Your task to perform on an android device: open wifi settings Image 0: 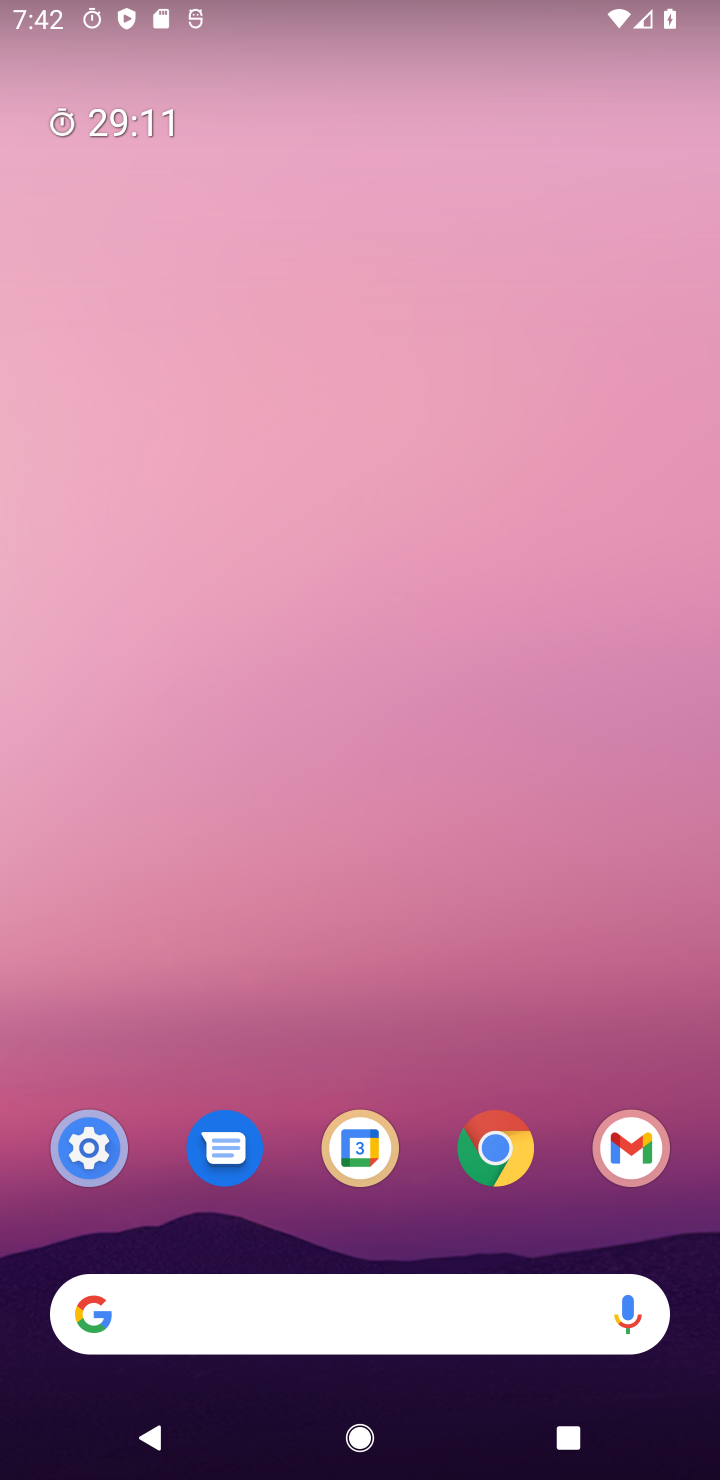
Step 0: drag from (345, 1188) to (414, 439)
Your task to perform on an android device: open wifi settings Image 1: 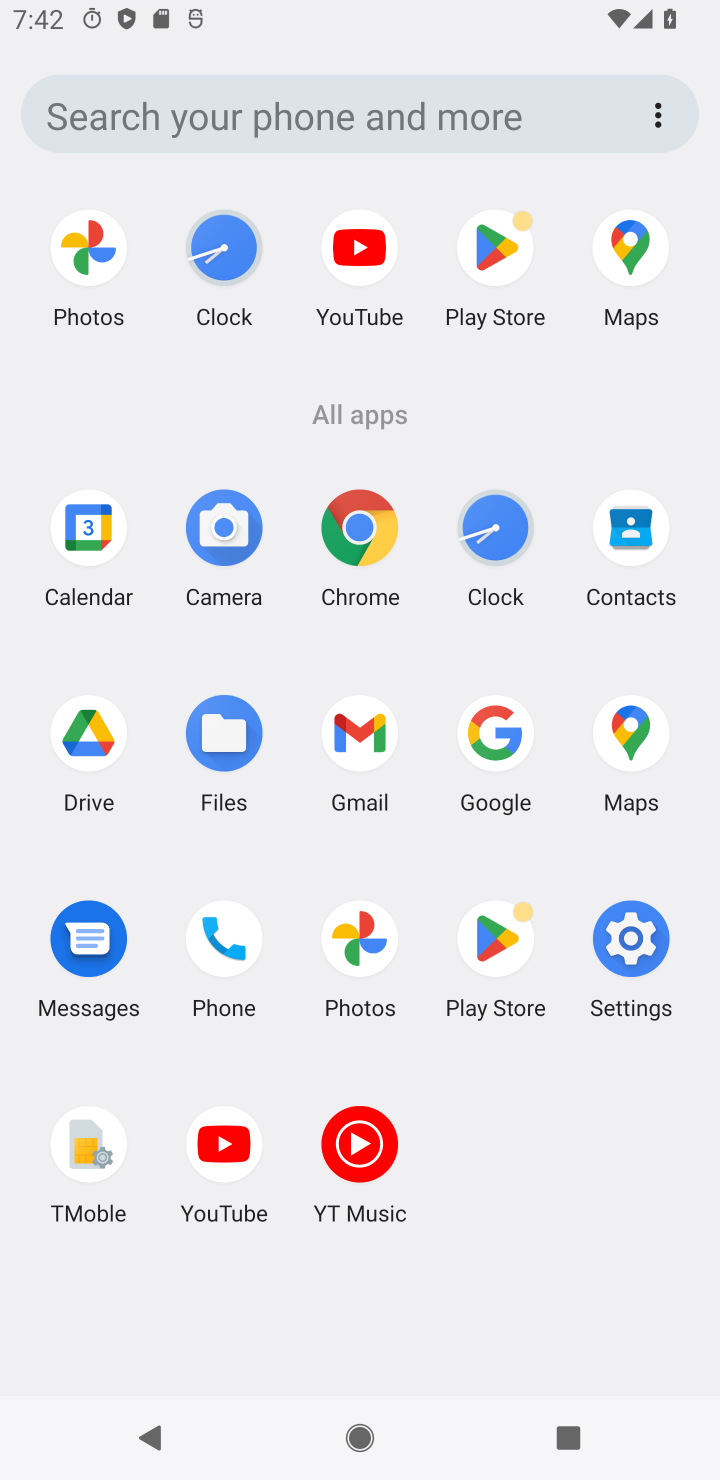
Step 1: drag from (624, 16) to (534, 665)
Your task to perform on an android device: open wifi settings Image 2: 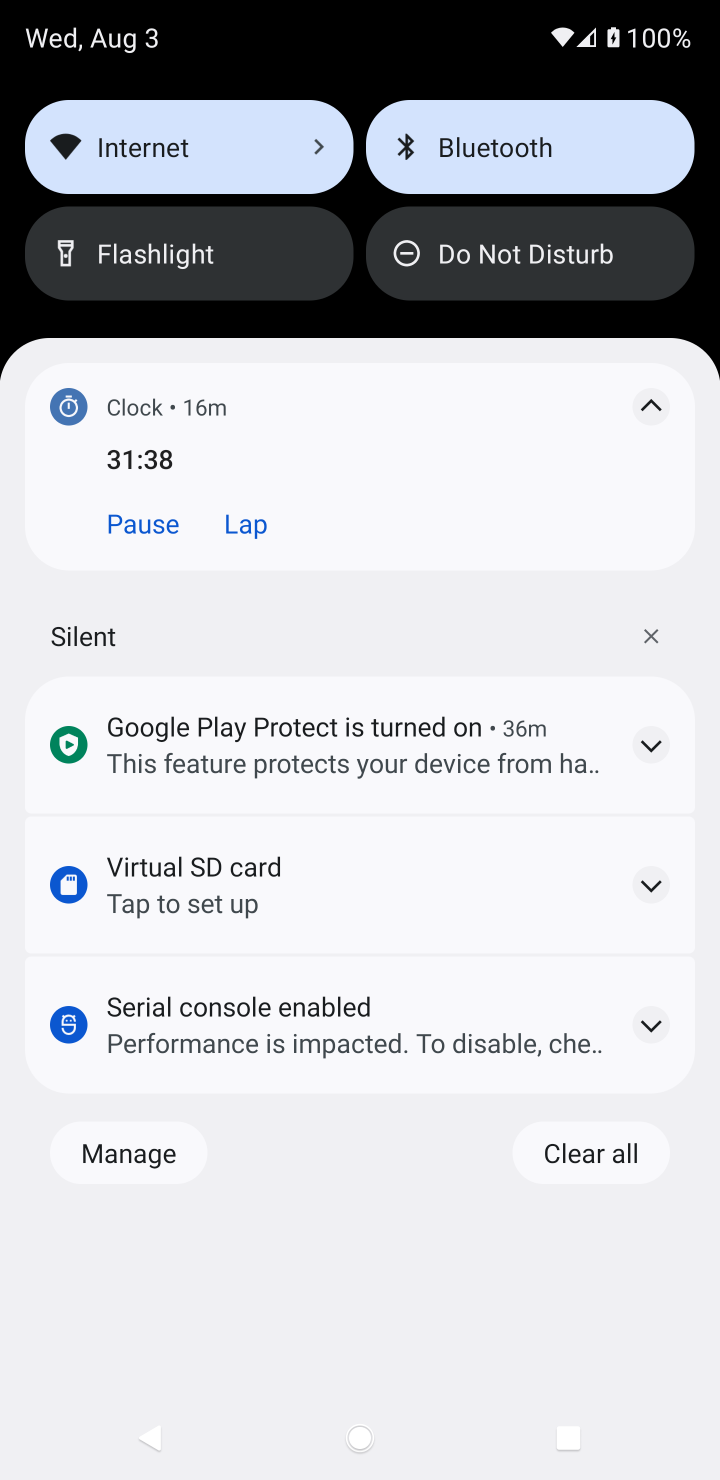
Step 2: press home button
Your task to perform on an android device: open wifi settings Image 3: 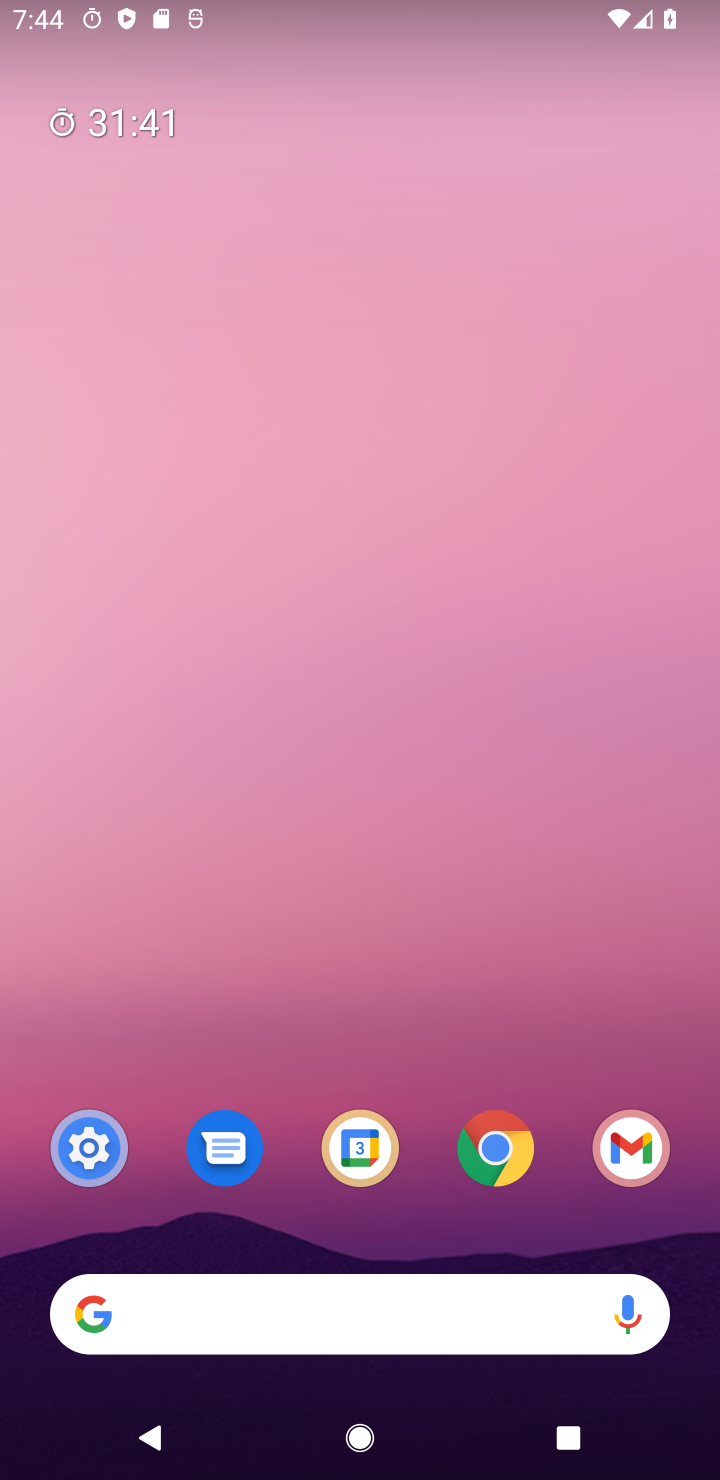
Step 3: drag from (669, 3) to (452, 961)
Your task to perform on an android device: open wifi settings Image 4: 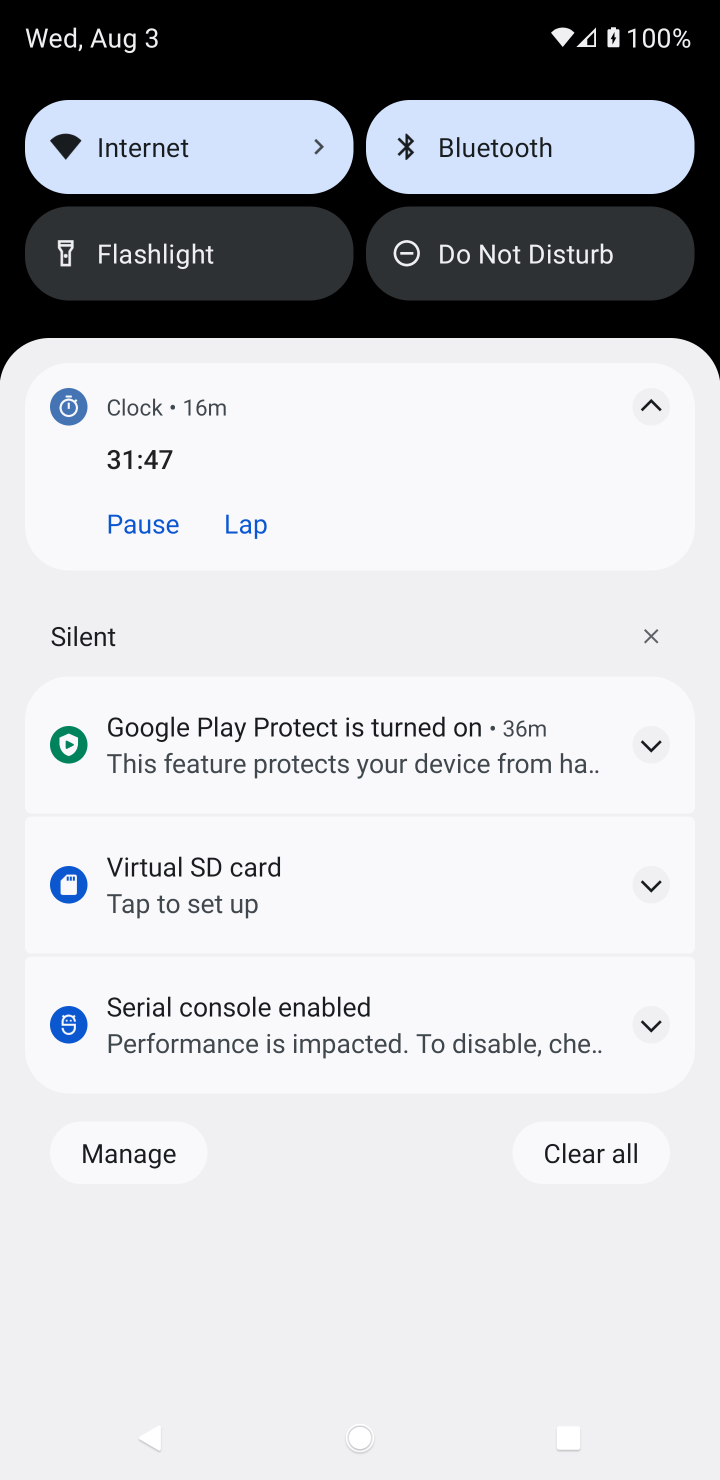
Step 4: drag from (370, 340) to (335, 1212)
Your task to perform on an android device: open wifi settings Image 5: 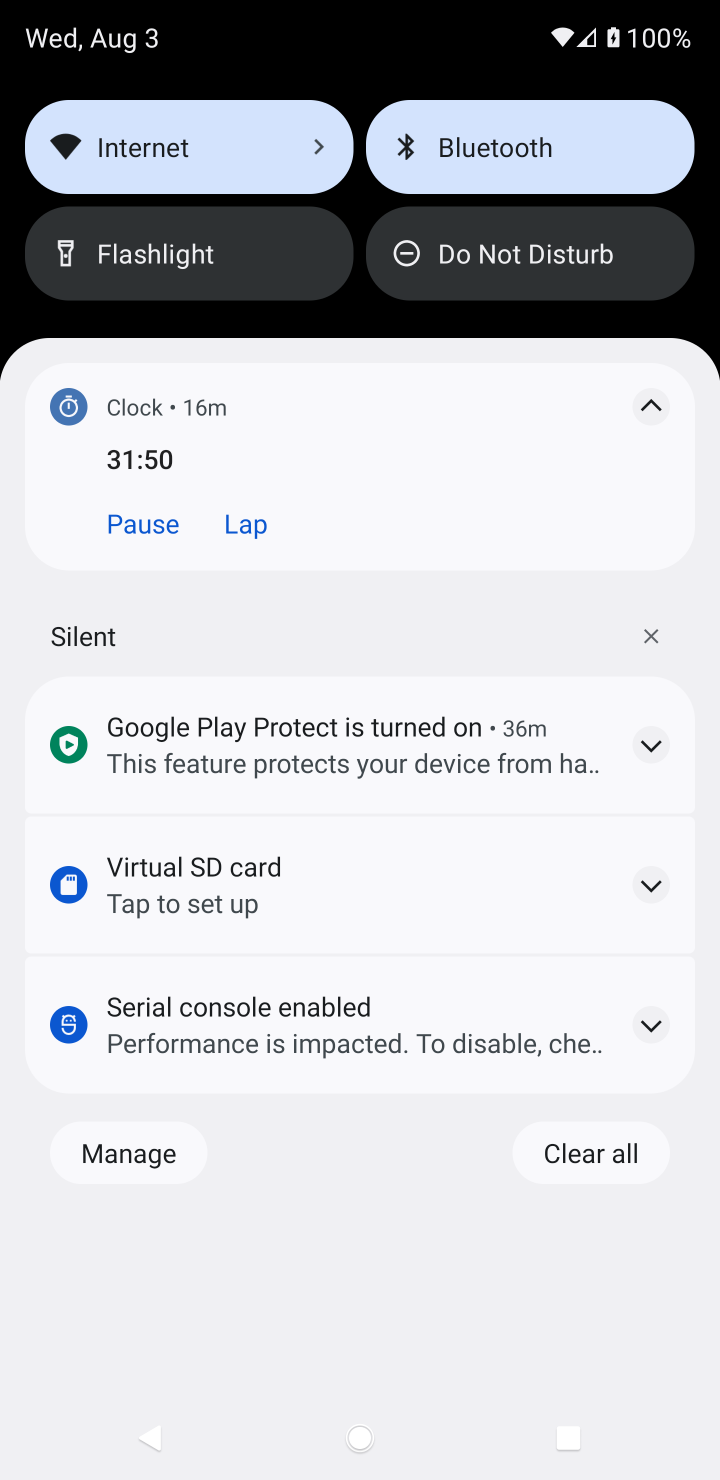
Step 5: drag from (415, 359) to (486, 1441)
Your task to perform on an android device: open wifi settings Image 6: 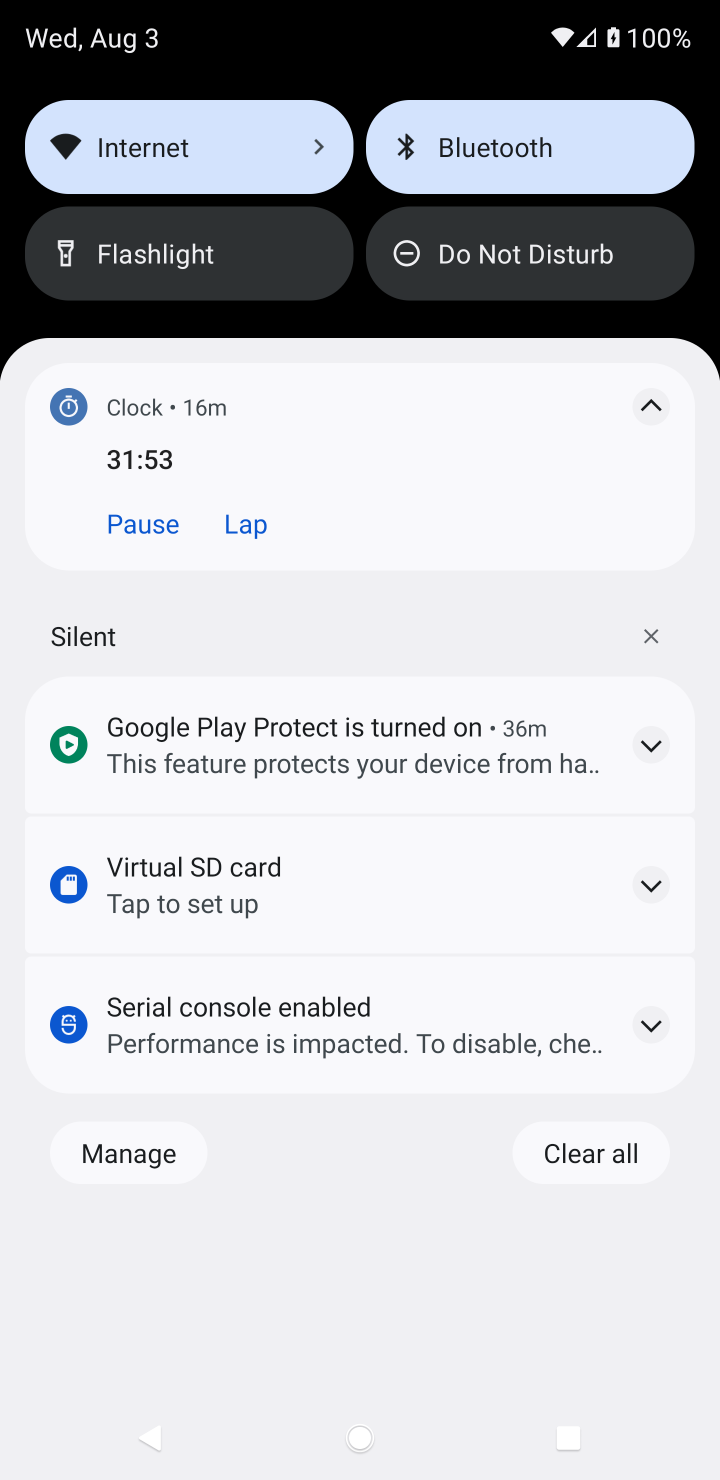
Step 6: drag from (469, 348) to (482, 1477)
Your task to perform on an android device: open wifi settings Image 7: 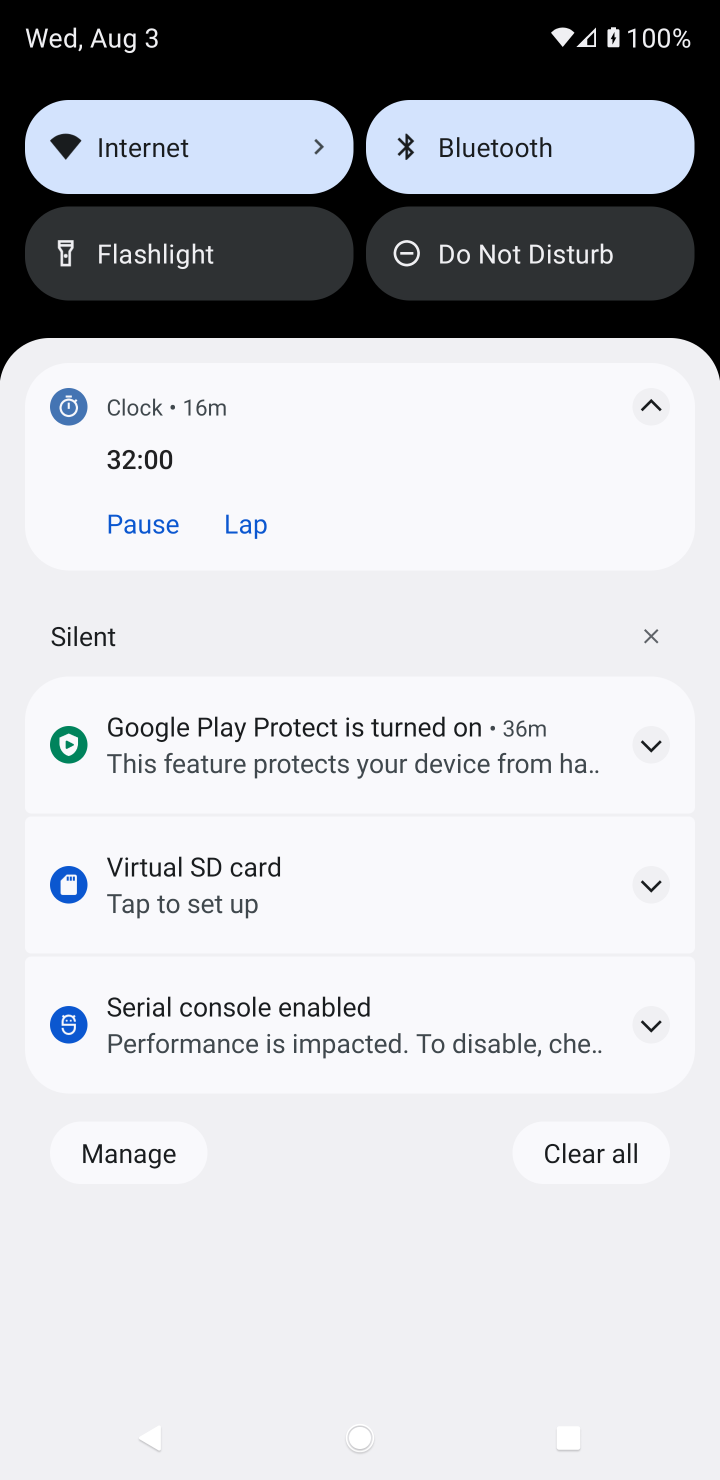
Step 7: drag from (348, 291) to (352, 1463)
Your task to perform on an android device: open wifi settings Image 8: 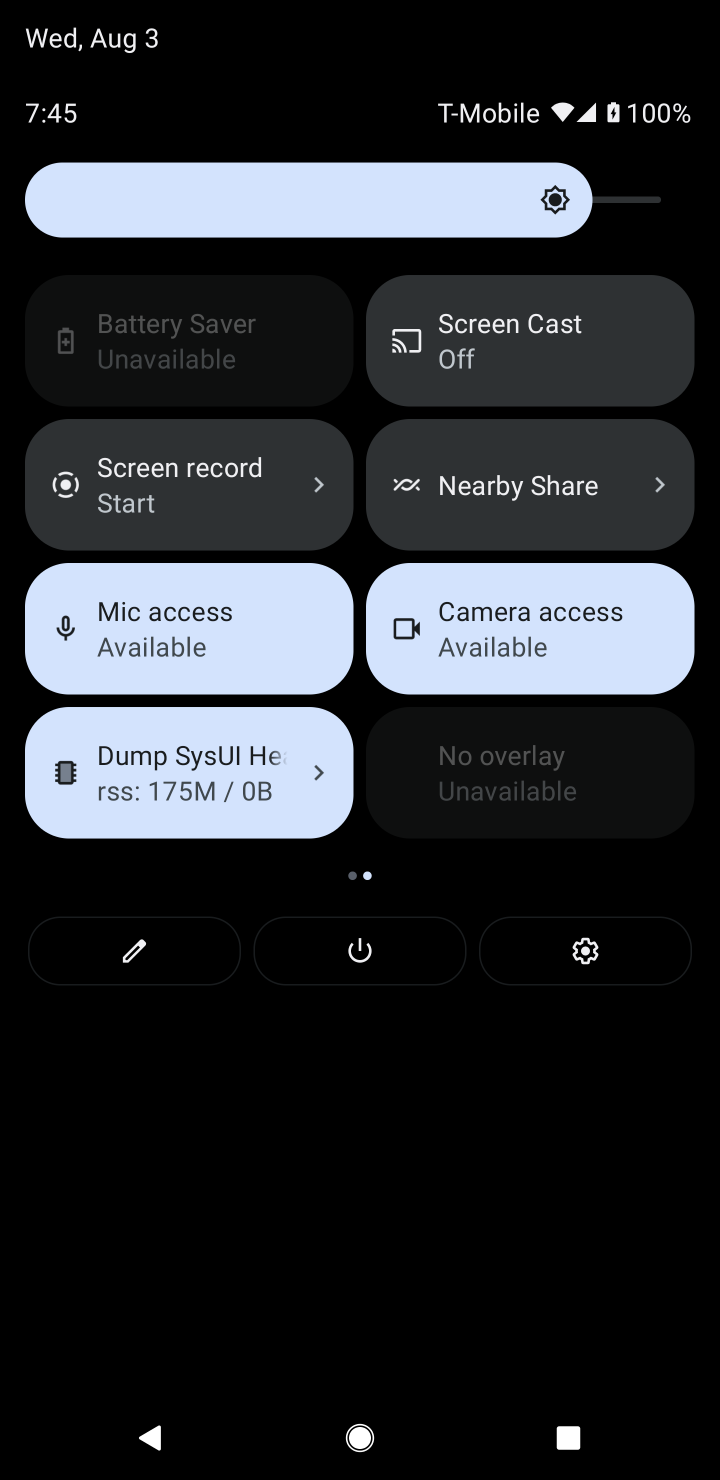
Step 8: drag from (654, 679) to (706, 1049)
Your task to perform on an android device: open wifi settings Image 9: 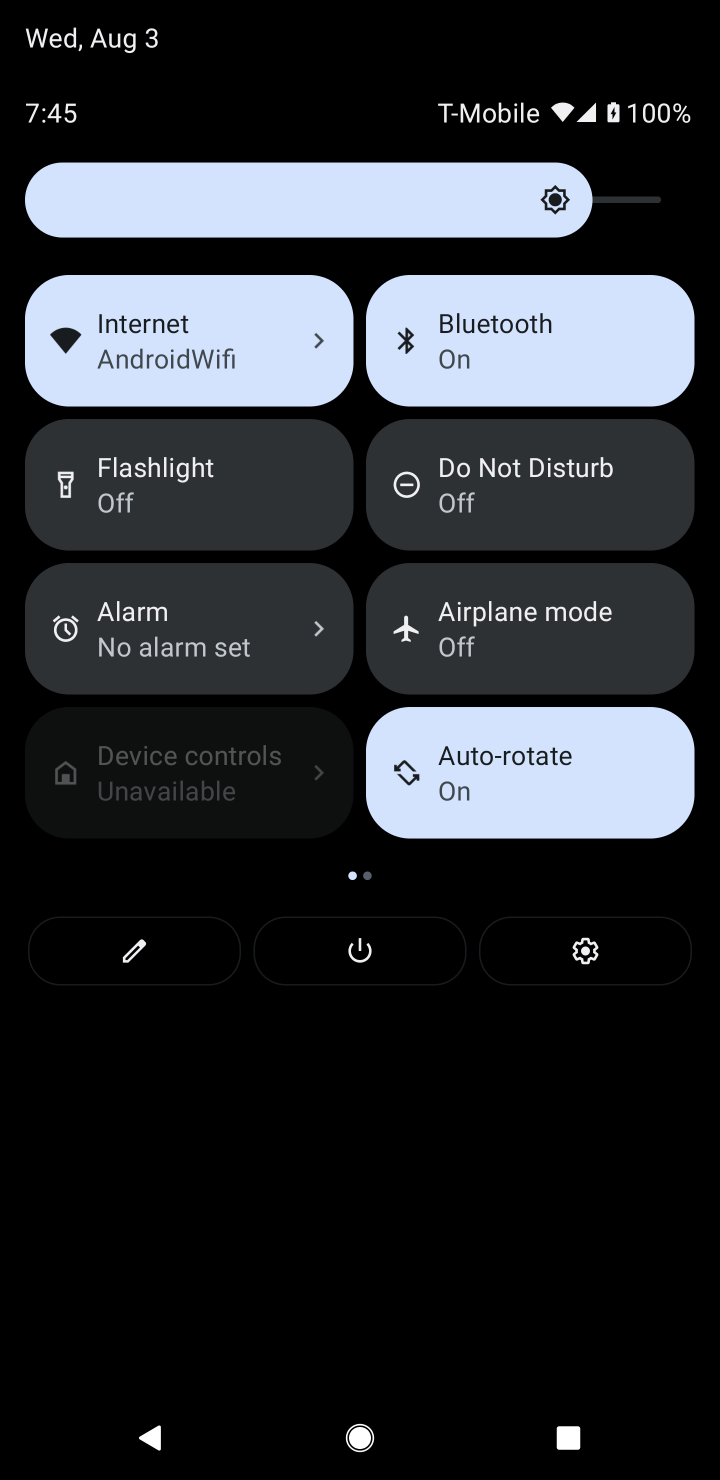
Step 9: click (208, 361)
Your task to perform on an android device: open wifi settings Image 10: 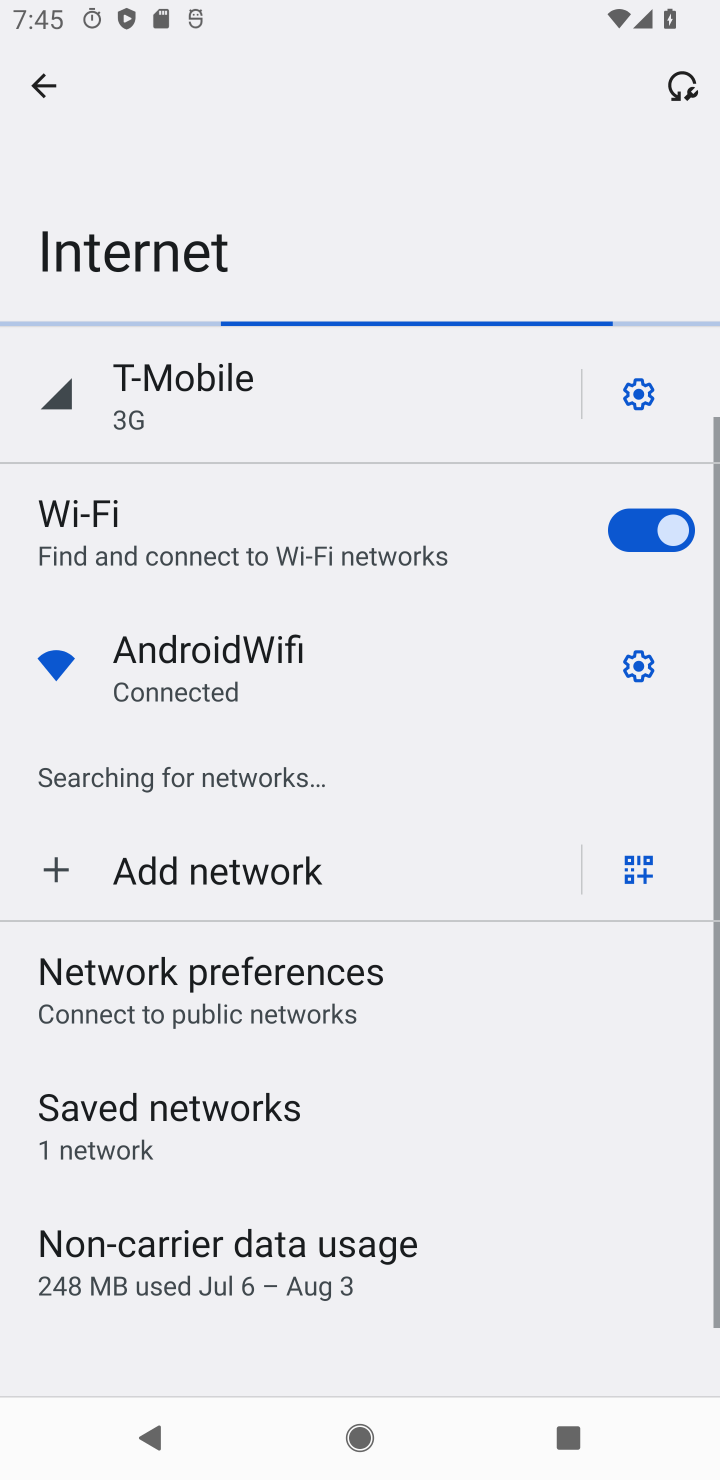
Step 10: click (156, 668)
Your task to perform on an android device: open wifi settings Image 11: 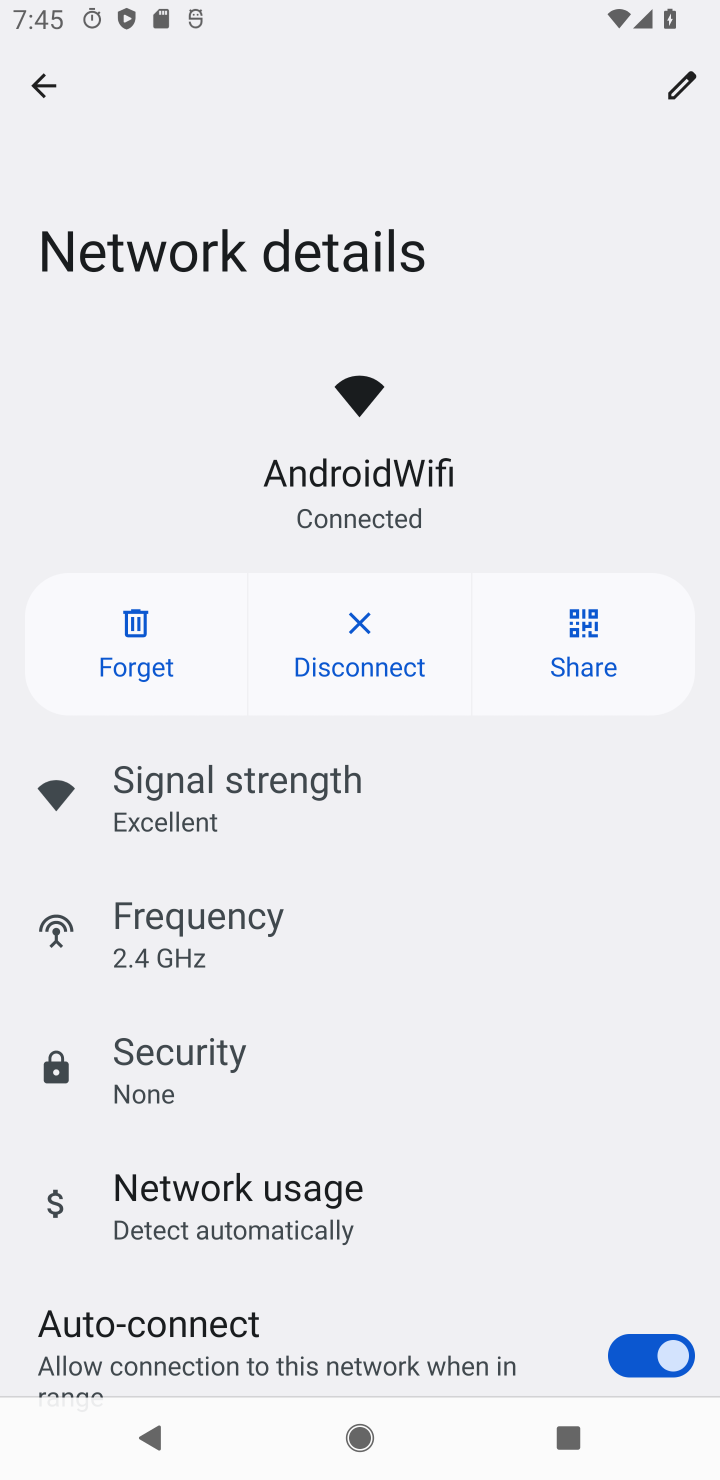
Step 11: task complete